Your task to perform on an android device: Check the news Image 0: 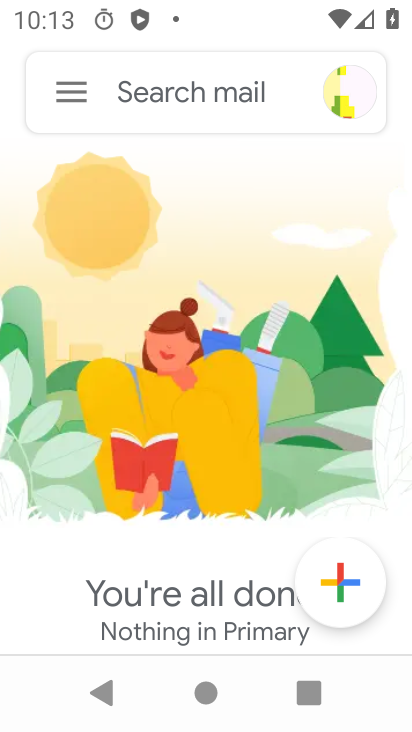
Step 0: click (216, 692)
Your task to perform on an android device: Check the news Image 1: 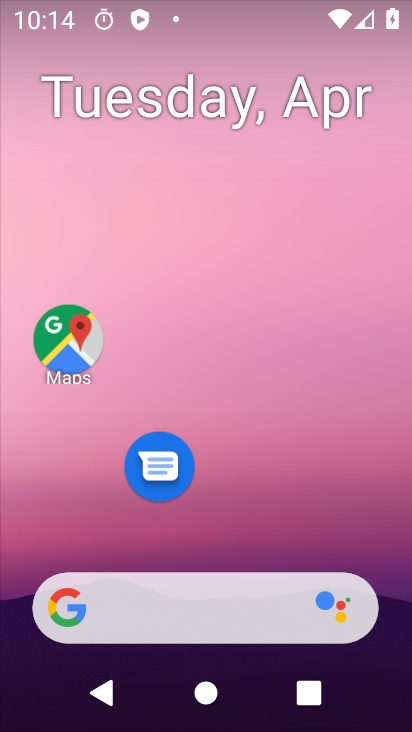
Step 1: drag from (274, 514) to (283, 65)
Your task to perform on an android device: Check the news Image 2: 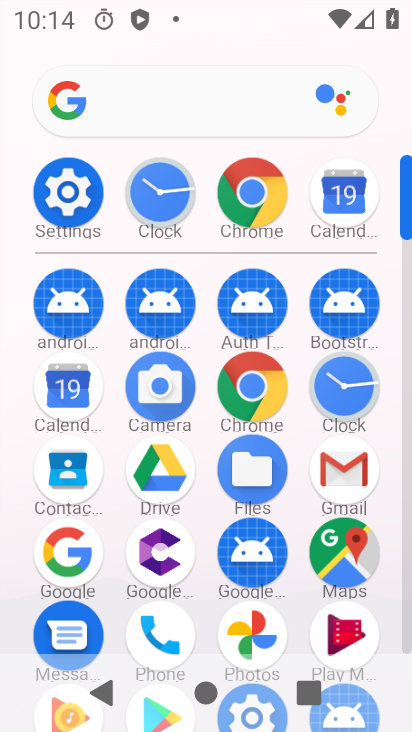
Step 2: click (259, 217)
Your task to perform on an android device: Check the news Image 3: 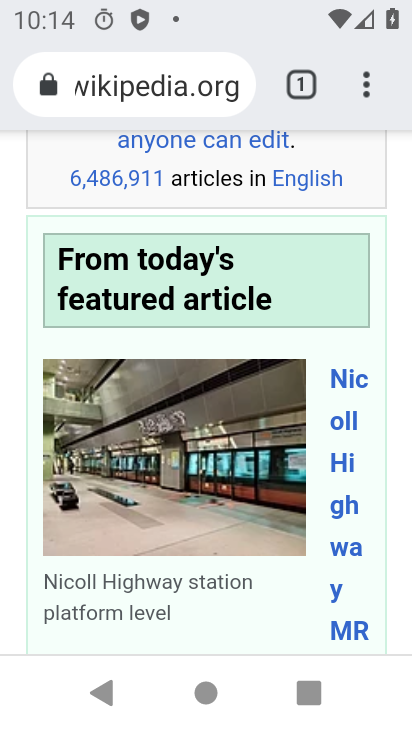
Step 3: click (292, 103)
Your task to perform on an android device: Check the news Image 4: 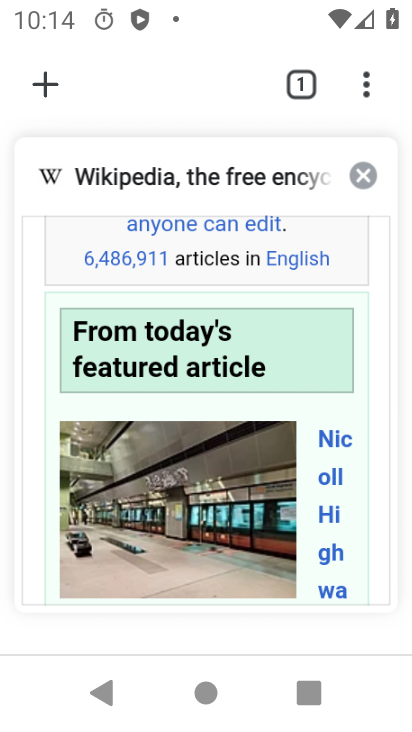
Step 4: click (55, 94)
Your task to perform on an android device: Check the news Image 5: 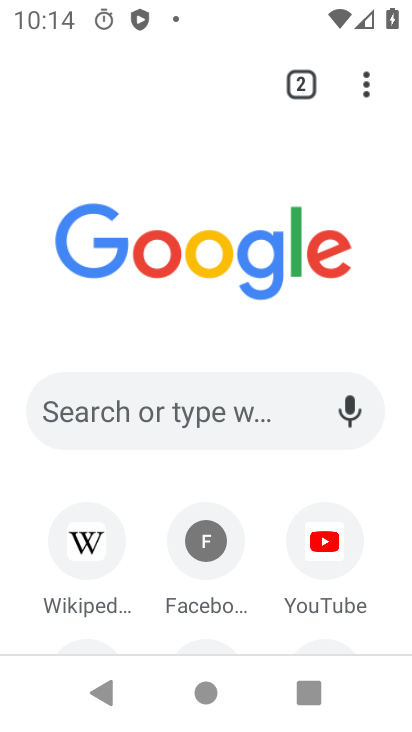
Step 5: drag from (141, 506) to (208, 119)
Your task to perform on an android device: Check the news Image 6: 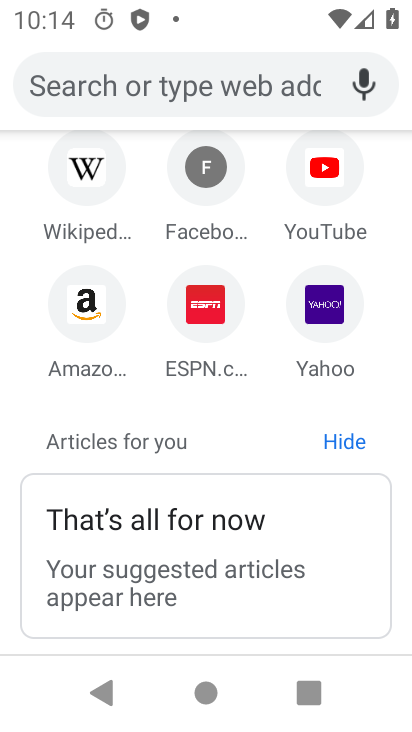
Step 6: drag from (213, 467) to (227, 126)
Your task to perform on an android device: Check the news Image 7: 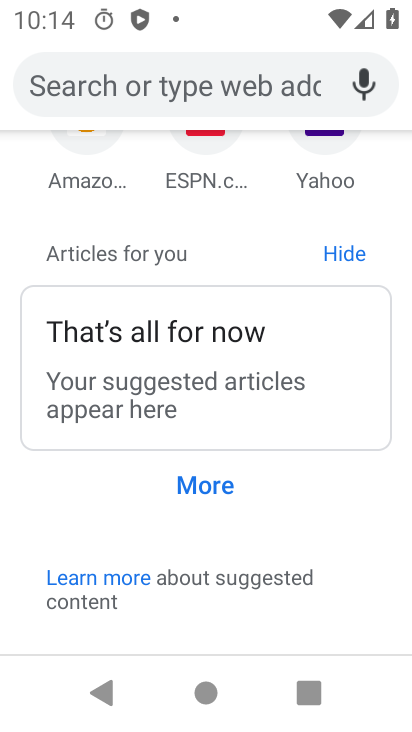
Step 7: click (221, 490)
Your task to perform on an android device: Check the news Image 8: 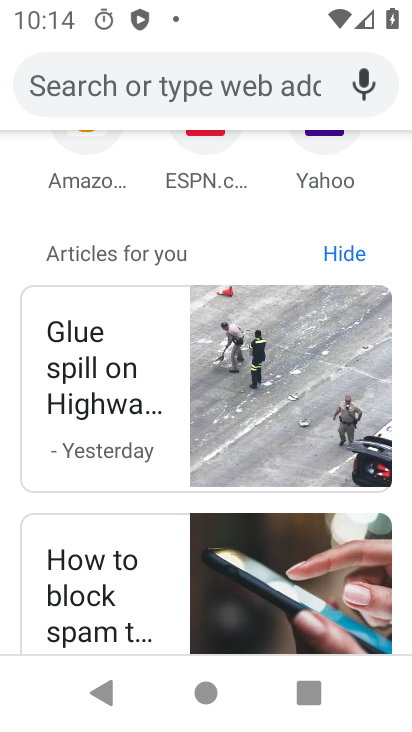
Step 8: task complete